Your task to perform on an android device: Open the map Image 0: 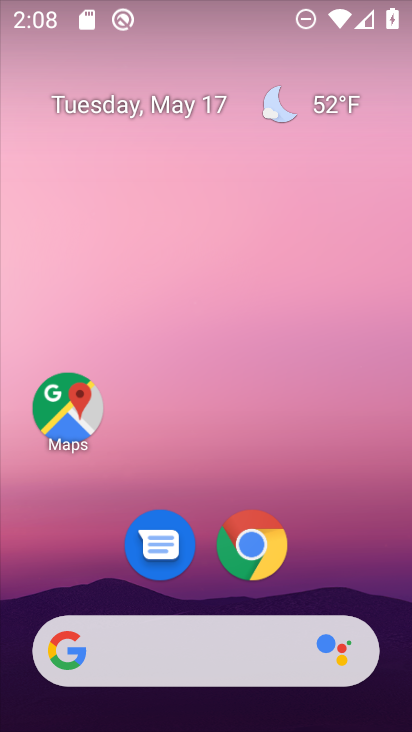
Step 0: drag from (355, 592) to (352, 159)
Your task to perform on an android device: Open the map Image 1: 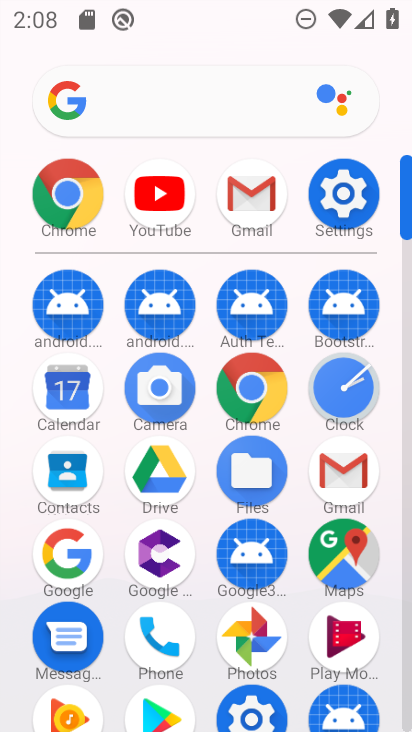
Step 1: click (354, 571)
Your task to perform on an android device: Open the map Image 2: 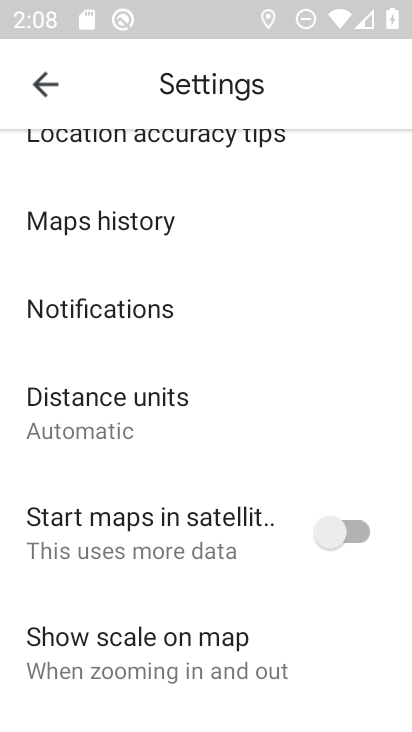
Step 2: click (49, 85)
Your task to perform on an android device: Open the map Image 3: 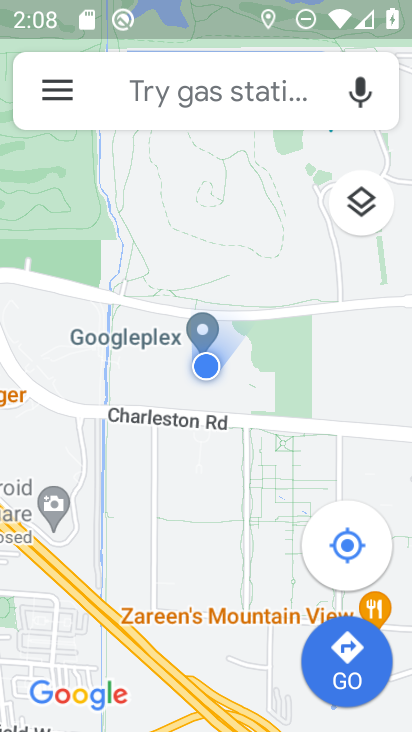
Step 3: task complete